Your task to perform on an android device: turn on bluetooth scan Image 0: 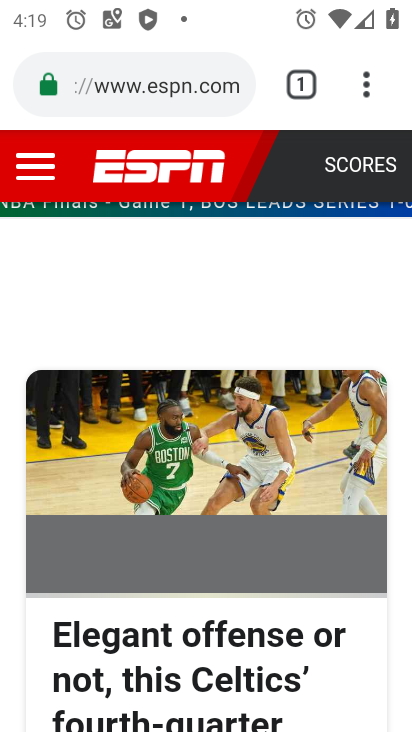
Step 0: press home button
Your task to perform on an android device: turn on bluetooth scan Image 1: 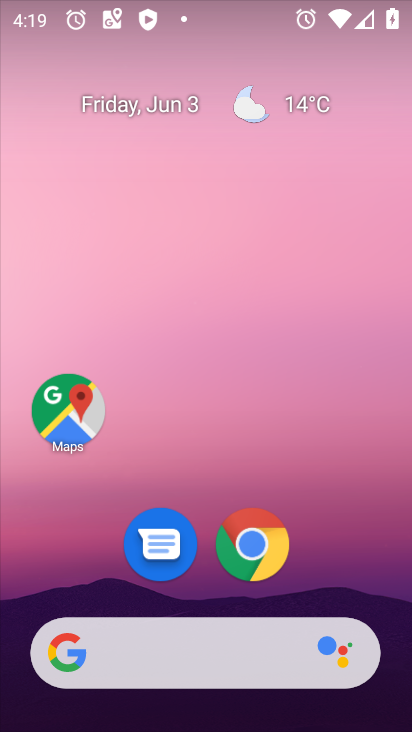
Step 1: drag from (396, 648) to (286, 172)
Your task to perform on an android device: turn on bluetooth scan Image 2: 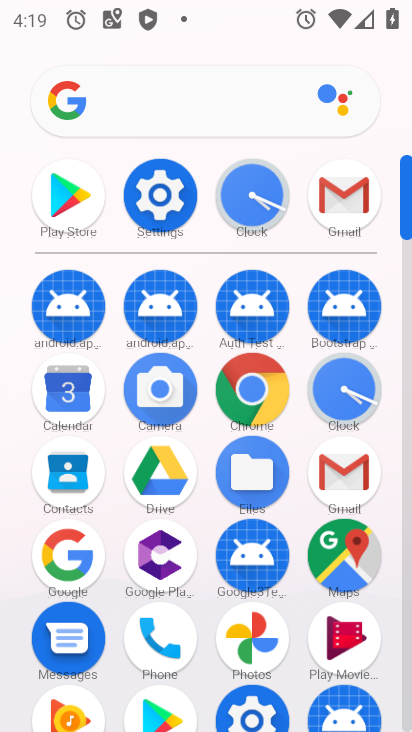
Step 2: click (408, 690)
Your task to perform on an android device: turn on bluetooth scan Image 3: 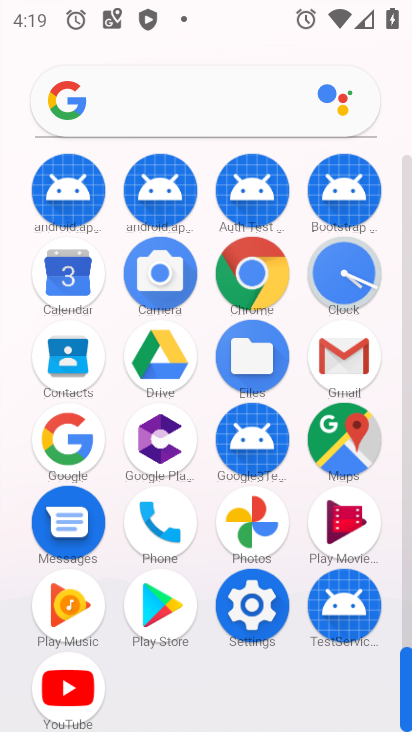
Step 3: click (256, 604)
Your task to perform on an android device: turn on bluetooth scan Image 4: 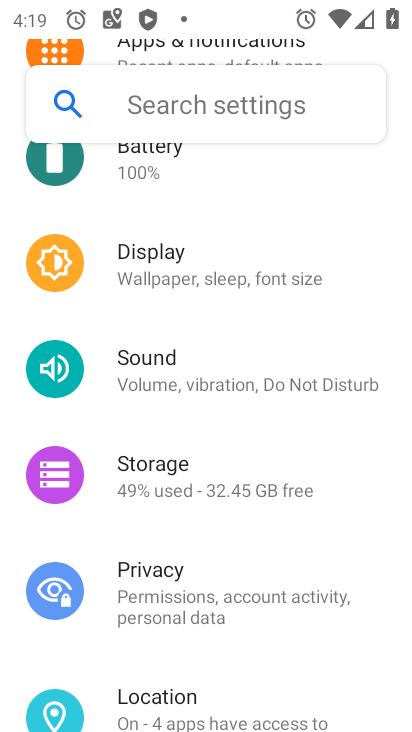
Step 4: drag from (370, 642) to (340, 176)
Your task to perform on an android device: turn on bluetooth scan Image 5: 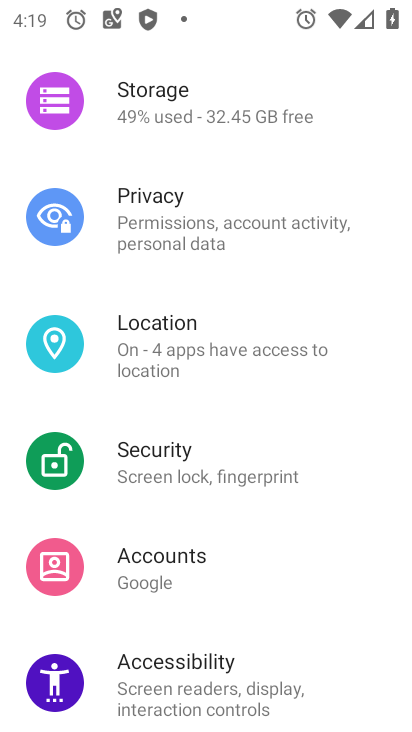
Step 5: click (145, 338)
Your task to perform on an android device: turn on bluetooth scan Image 6: 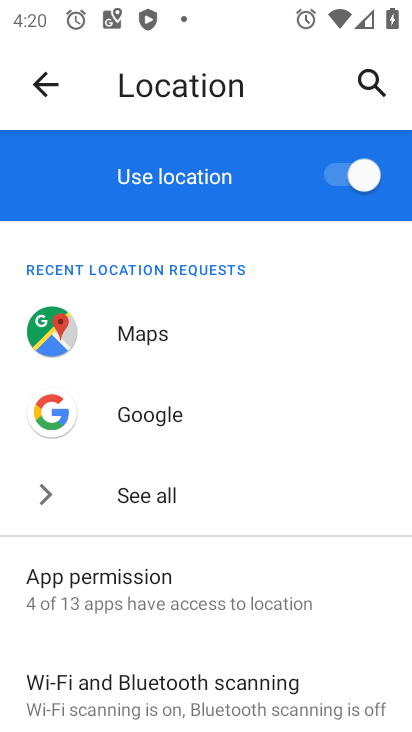
Step 6: drag from (271, 688) to (290, 259)
Your task to perform on an android device: turn on bluetooth scan Image 7: 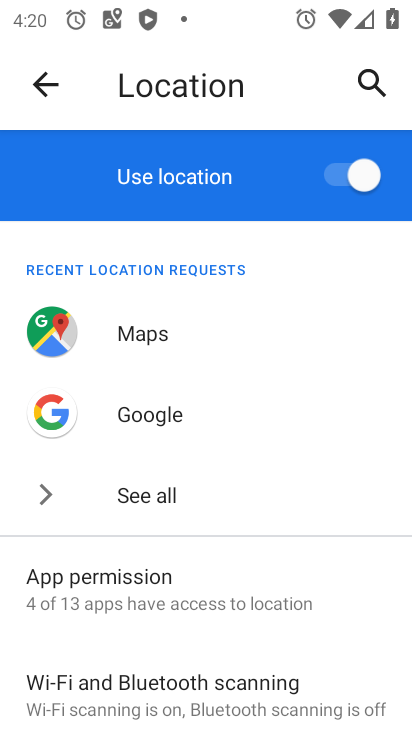
Step 7: drag from (305, 641) to (277, 286)
Your task to perform on an android device: turn on bluetooth scan Image 8: 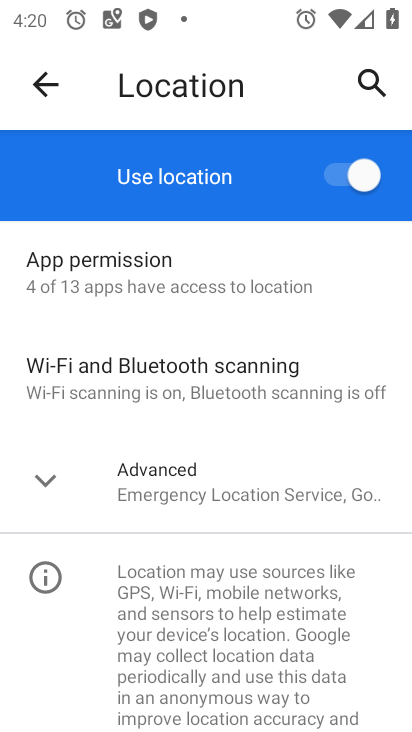
Step 8: click (111, 360)
Your task to perform on an android device: turn on bluetooth scan Image 9: 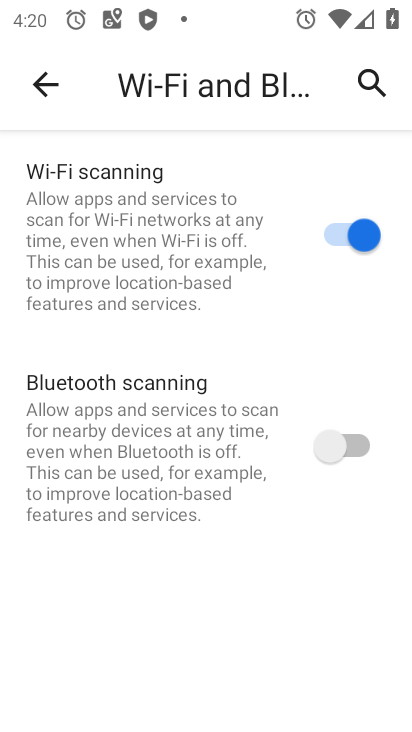
Step 9: click (351, 441)
Your task to perform on an android device: turn on bluetooth scan Image 10: 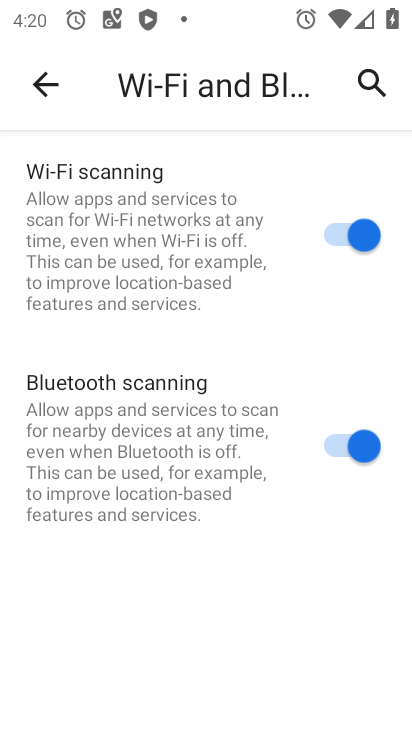
Step 10: task complete